Your task to perform on an android device: turn off translation in the chrome app Image 0: 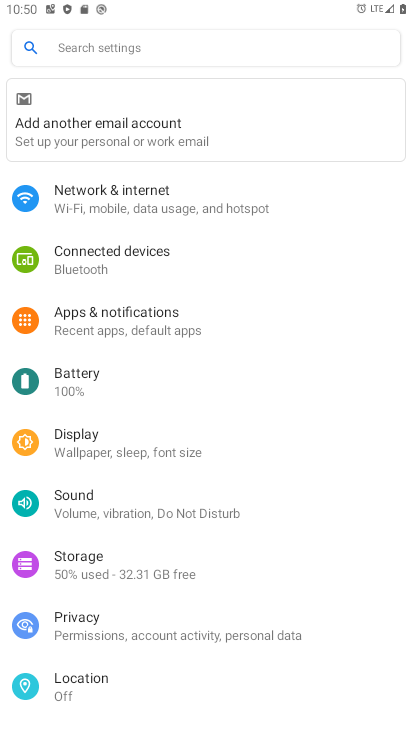
Step 0: press home button
Your task to perform on an android device: turn off translation in the chrome app Image 1: 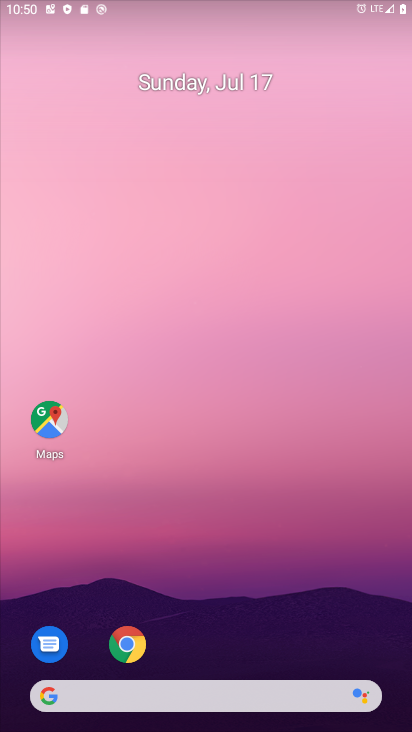
Step 1: drag from (310, 608) to (361, 20)
Your task to perform on an android device: turn off translation in the chrome app Image 2: 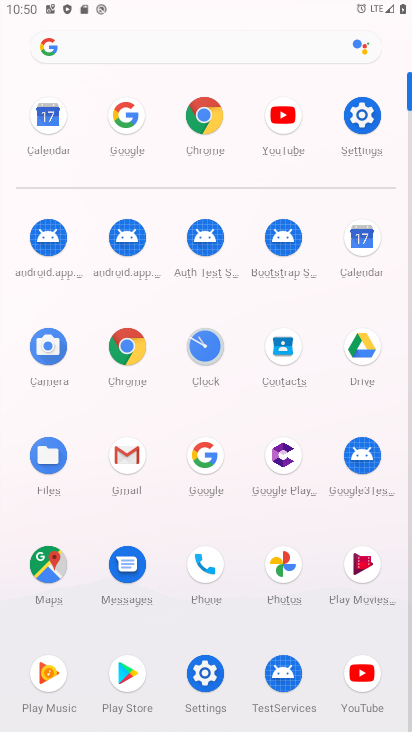
Step 2: click (204, 117)
Your task to perform on an android device: turn off translation in the chrome app Image 3: 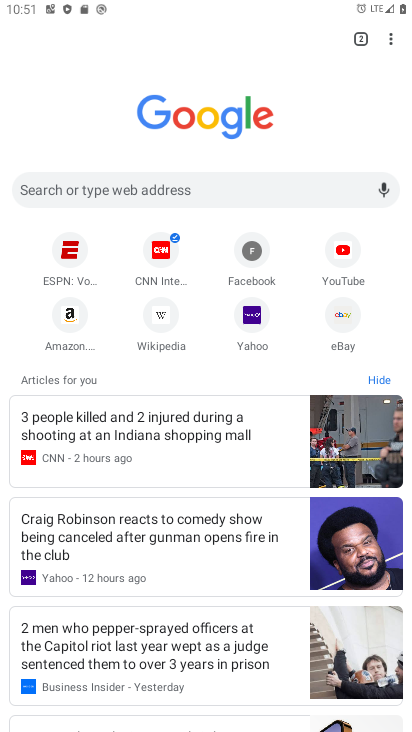
Step 3: drag from (389, 39) to (238, 330)
Your task to perform on an android device: turn off translation in the chrome app Image 4: 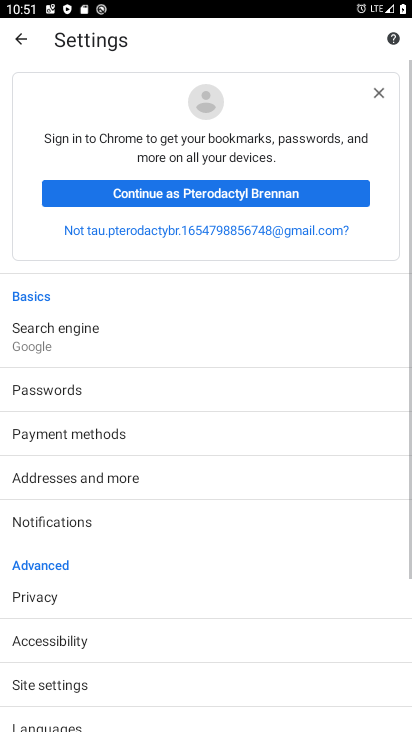
Step 4: drag from (154, 671) to (248, 200)
Your task to perform on an android device: turn off translation in the chrome app Image 5: 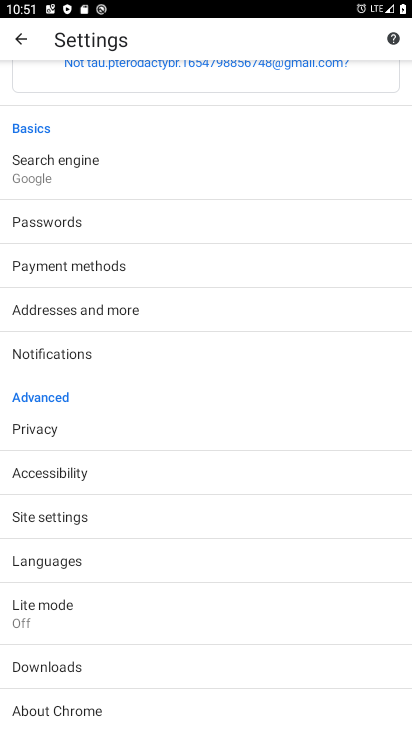
Step 5: click (90, 568)
Your task to perform on an android device: turn off translation in the chrome app Image 6: 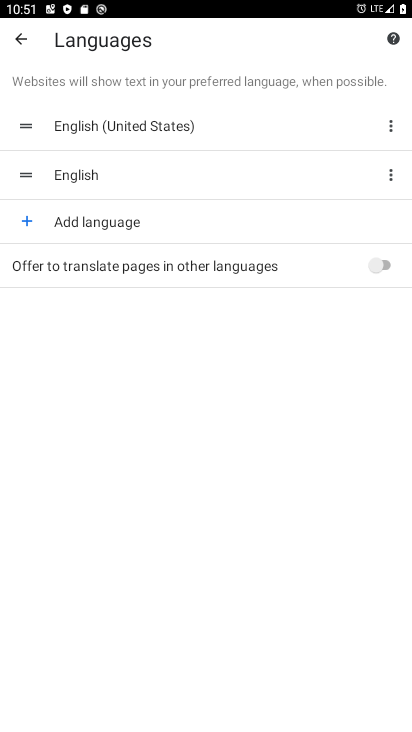
Step 6: task complete